Your task to perform on an android device: choose inbox layout in the gmail app Image 0: 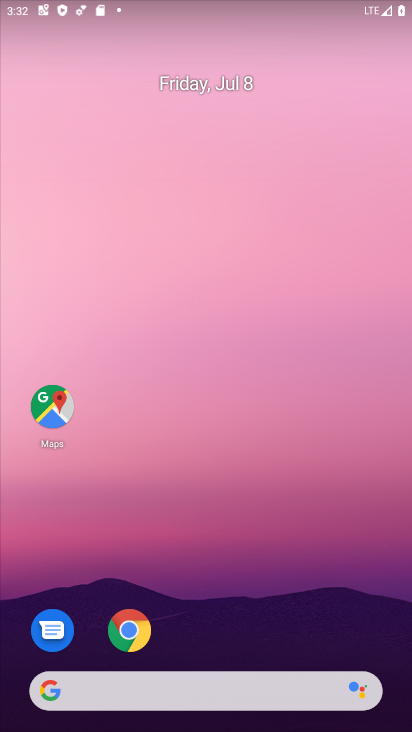
Step 0: drag from (263, 643) to (271, 80)
Your task to perform on an android device: choose inbox layout in the gmail app Image 1: 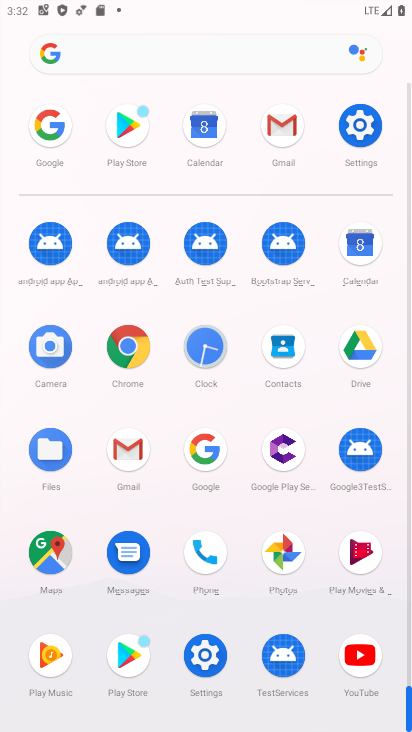
Step 1: click (285, 123)
Your task to perform on an android device: choose inbox layout in the gmail app Image 2: 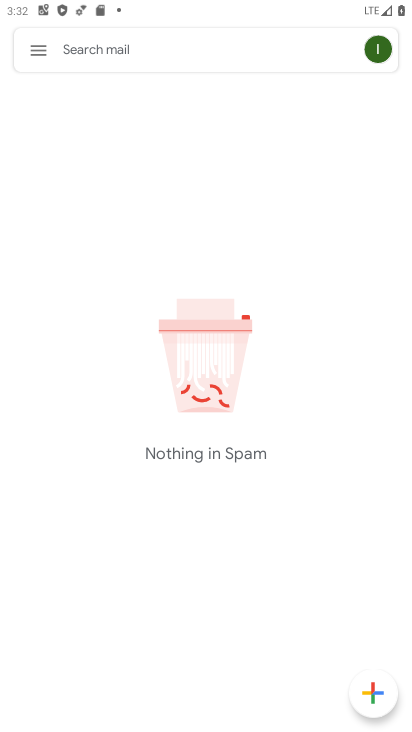
Step 2: click (37, 51)
Your task to perform on an android device: choose inbox layout in the gmail app Image 3: 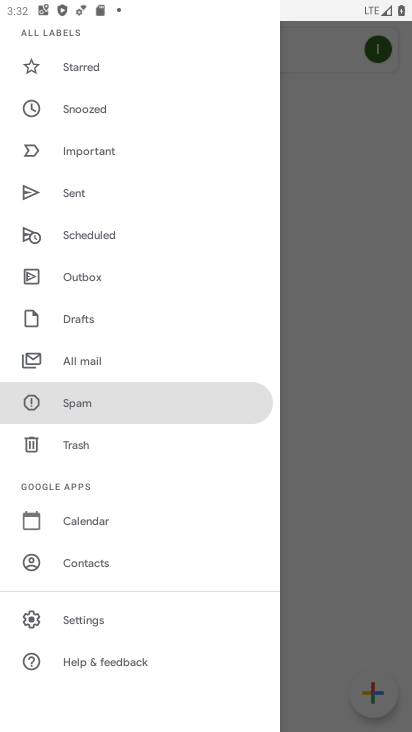
Step 3: click (94, 618)
Your task to perform on an android device: choose inbox layout in the gmail app Image 4: 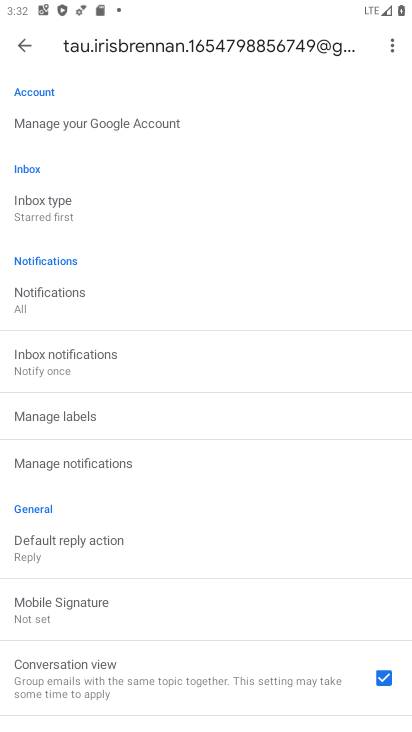
Step 4: click (63, 209)
Your task to perform on an android device: choose inbox layout in the gmail app Image 5: 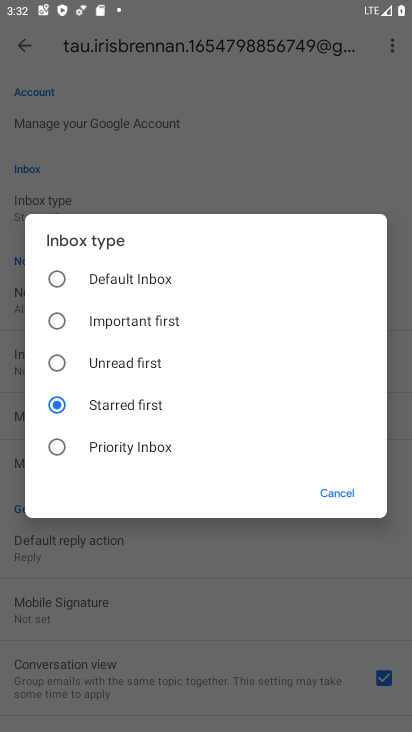
Step 5: click (104, 322)
Your task to perform on an android device: choose inbox layout in the gmail app Image 6: 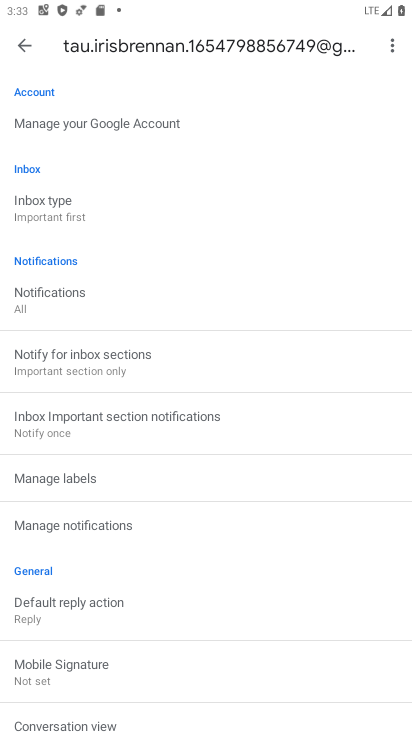
Step 6: task complete